Your task to perform on an android device: open a new tab in the chrome app Image 0: 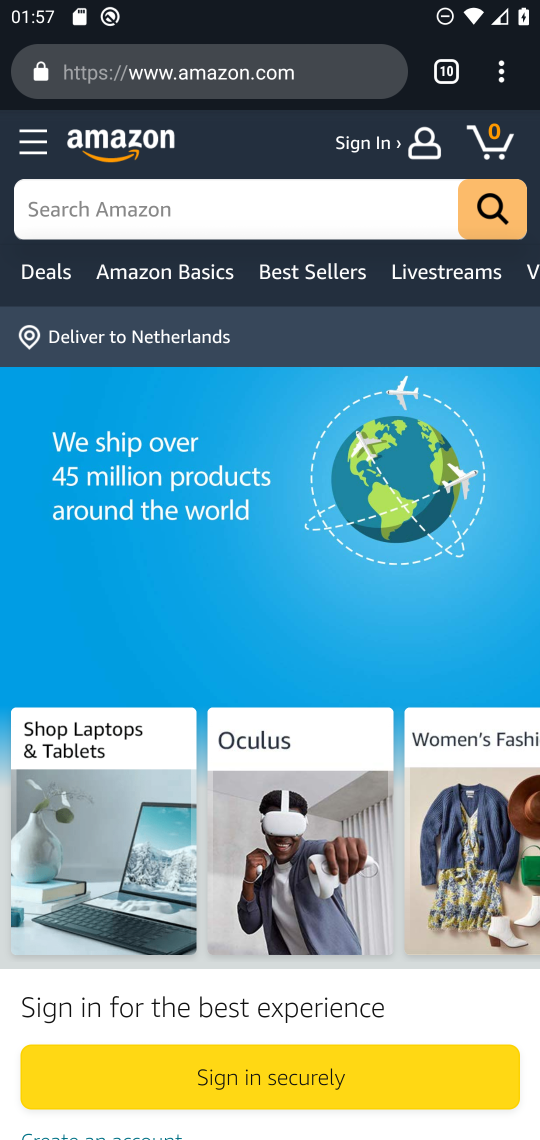
Step 0: press home button
Your task to perform on an android device: open a new tab in the chrome app Image 1: 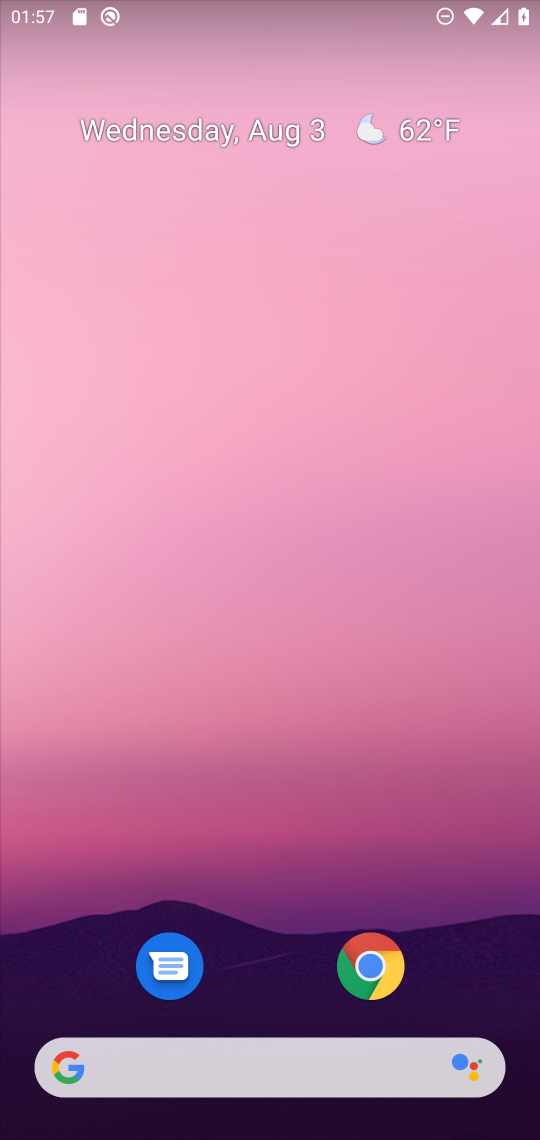
Step 1: click (338, 931)
Your task to perform on an android device: open a new tab in the chrome app Image 2: 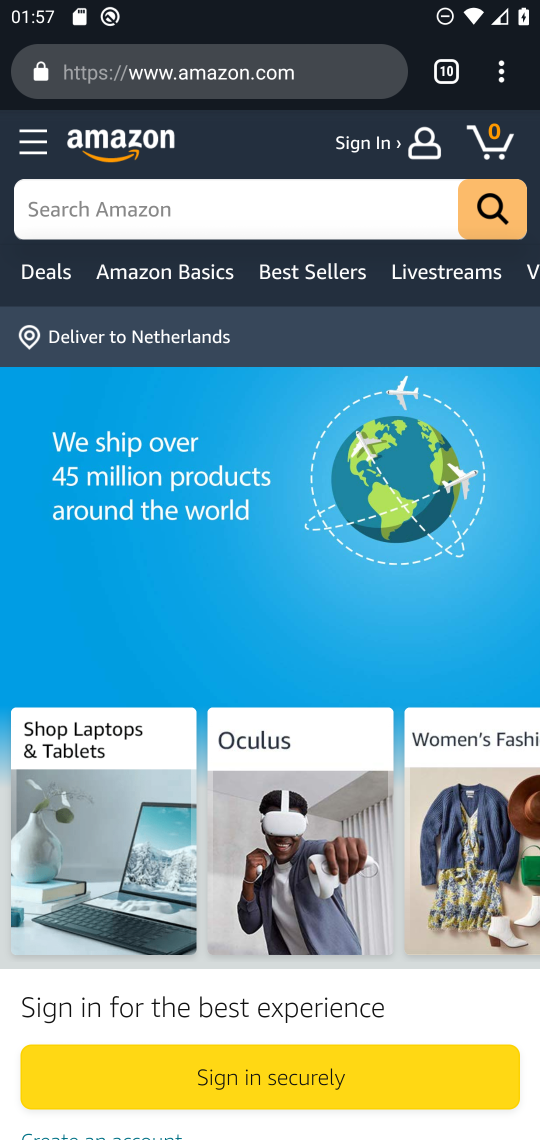
Step 2: click (451, 58)
Your task to perform on an android device: open a new tab in the chrome app Image 3: 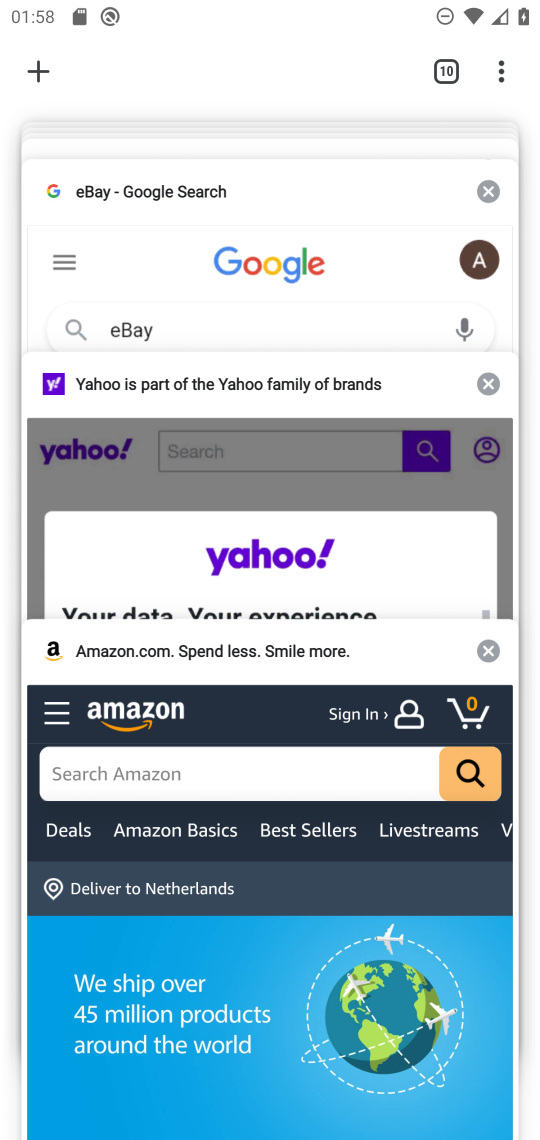
Step 3: click (39, 65)
Your task to perform on an android device: open a new tab in the chrome app Image 4: 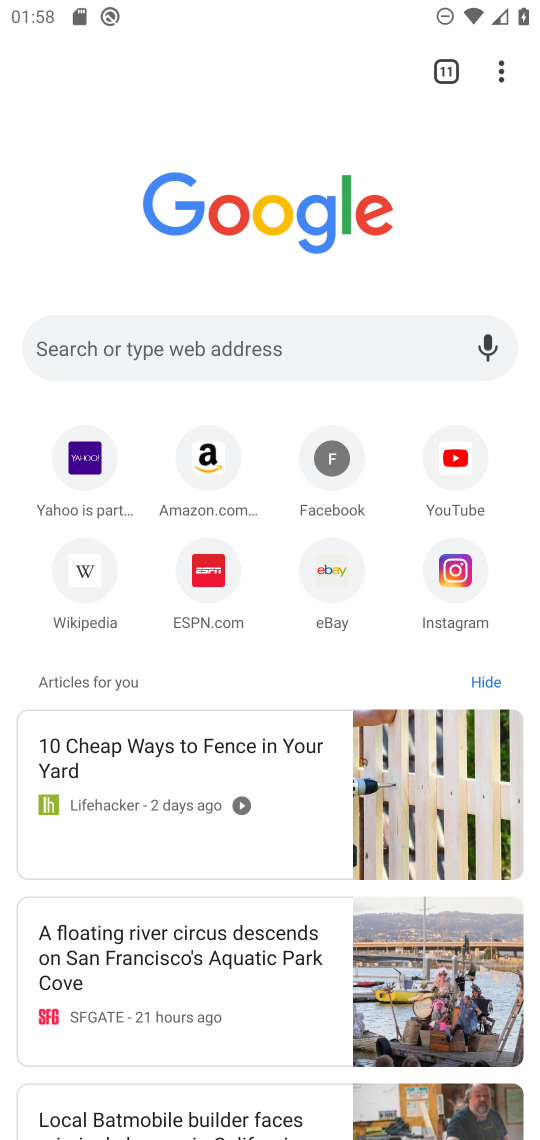
Step 4: task complete